Your task to perform on an android device: Go to Yahoo.com Image 0: 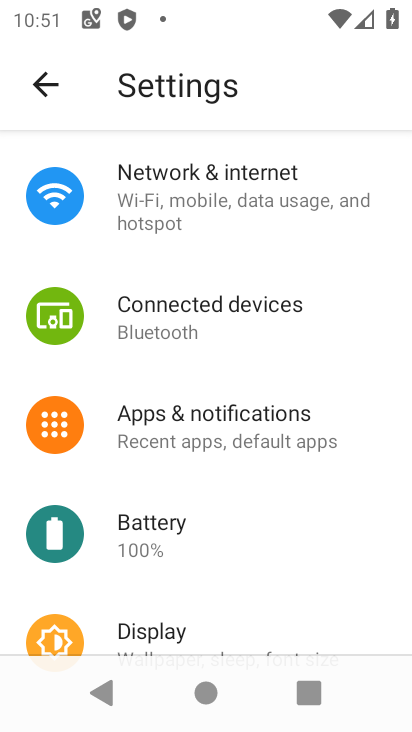
Step 0: press home button
Your task to perform on an android device: Go to Yahoo.com Image 1: 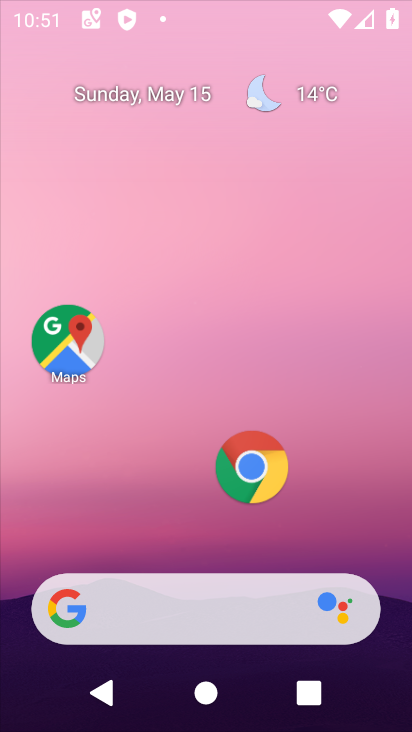
Step 1: drag from (244, 600) to (259, 25)
Your task to perform on an android device: Go to Yahoo.com Image 2: 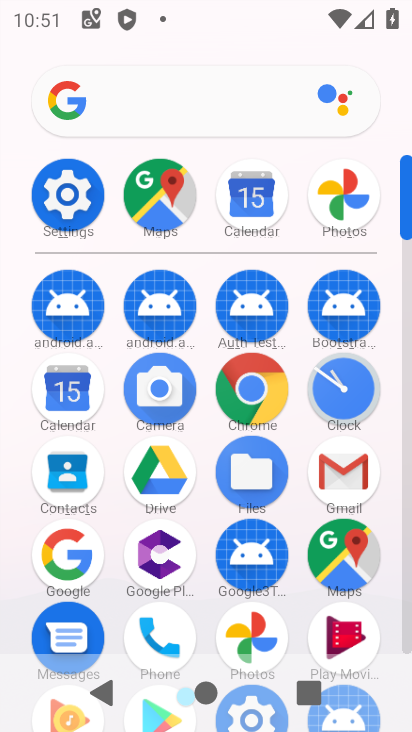
Step 2: click (194, 109)
Your task to perform on an android device: Go to Yahoo.com Image 3: 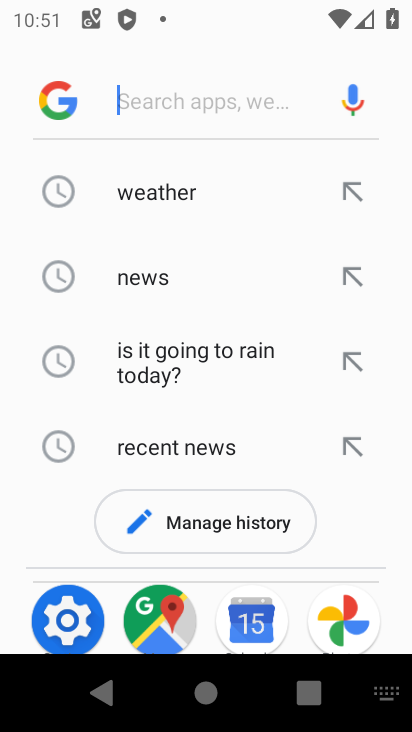
Step 3: type "yahoo"
Your task to perform on an android device: Go to Yahoo.com Image 4: 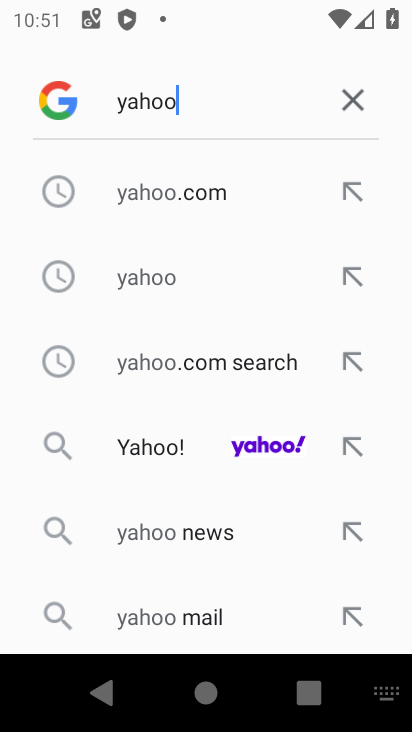
Step 4: click (198, 197)
Your task to perform on an android device: Go to Yahoo.com Image 5: 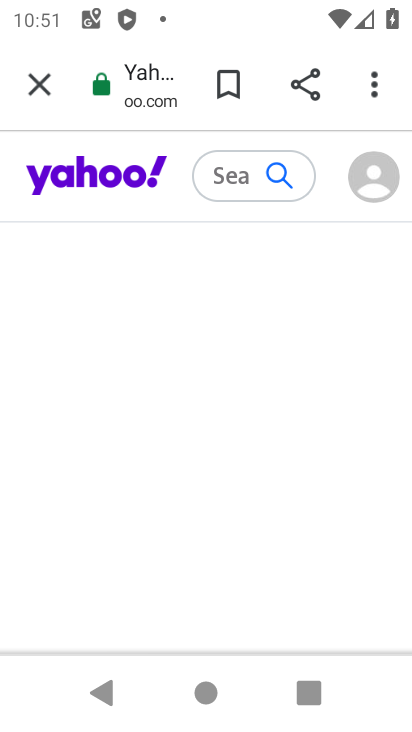
Step 5: task complete